Your task to perform on an android device: Open Maps and search for coffee Image 0: 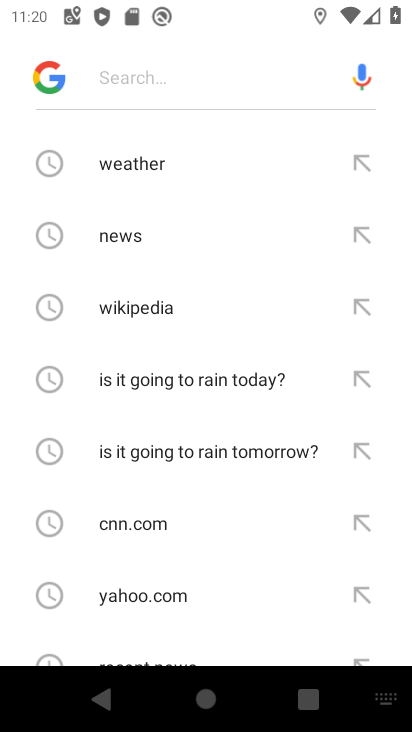
Step 0: press back button
Your task to perform on an android device: Open Maps and search for coffee Image 1: 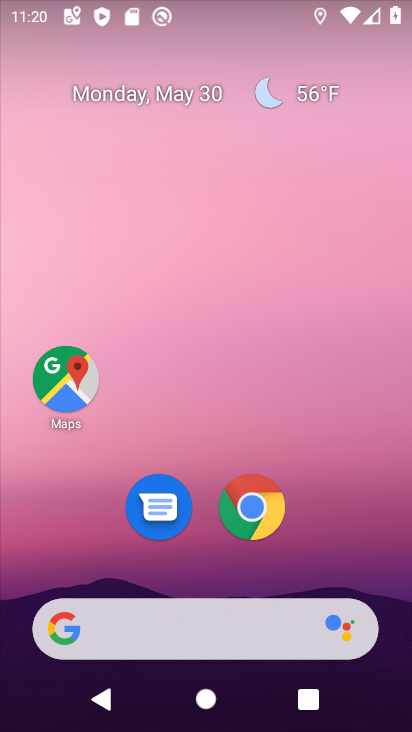
Step 1: click (85, 387)
Your task to perform on an android device: Open Maps and search for coffee Image 2: 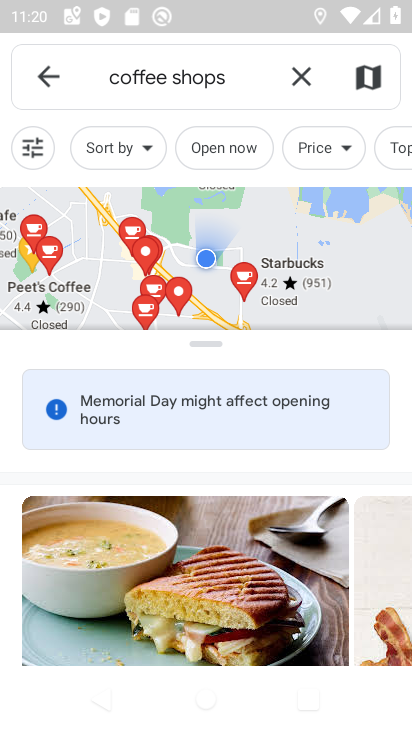
Step 2: click (303, 85)
Your task to perform on an android device: Open Maps and search for coffee Image 3: 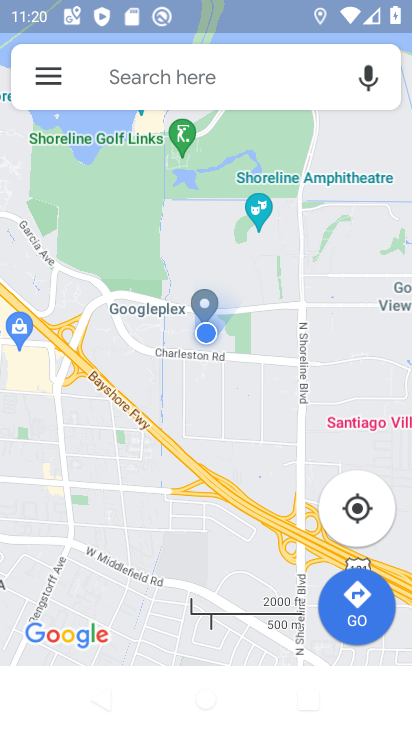
Step 3: click (202, 74)
Your task to perform on an android device: Open Maps and search for coffee Image 4: 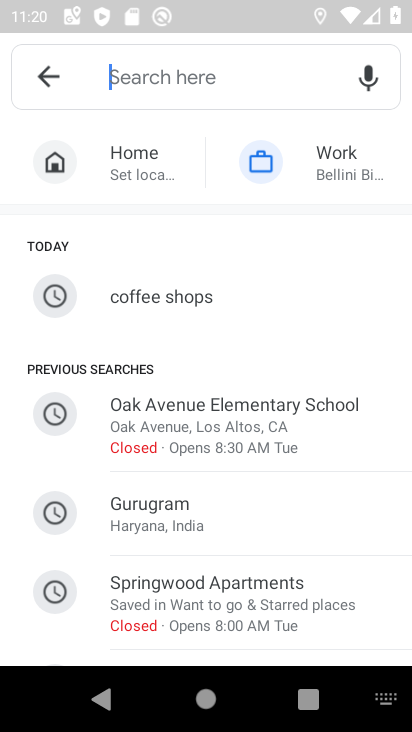
Step 4: type "coffee"
Your task to perform on an android device: Open Maps and search for coffee Image 5: 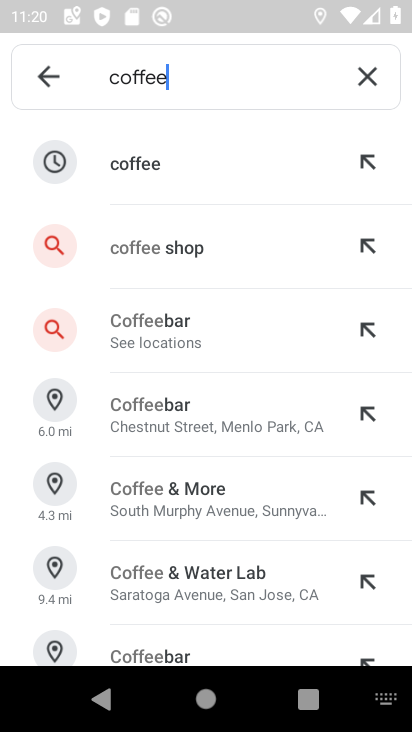
Step 5: click (127, 178)
Your task to perform on an android device: Open Maps and search for coffee Image 6: 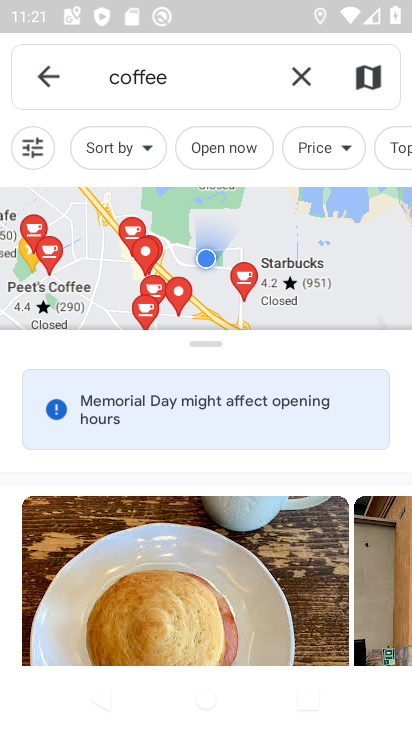
Step 6: task complete